Your task to perform on an android device: Add macbook air to the cart on amazon, then select checkout. Image 0: 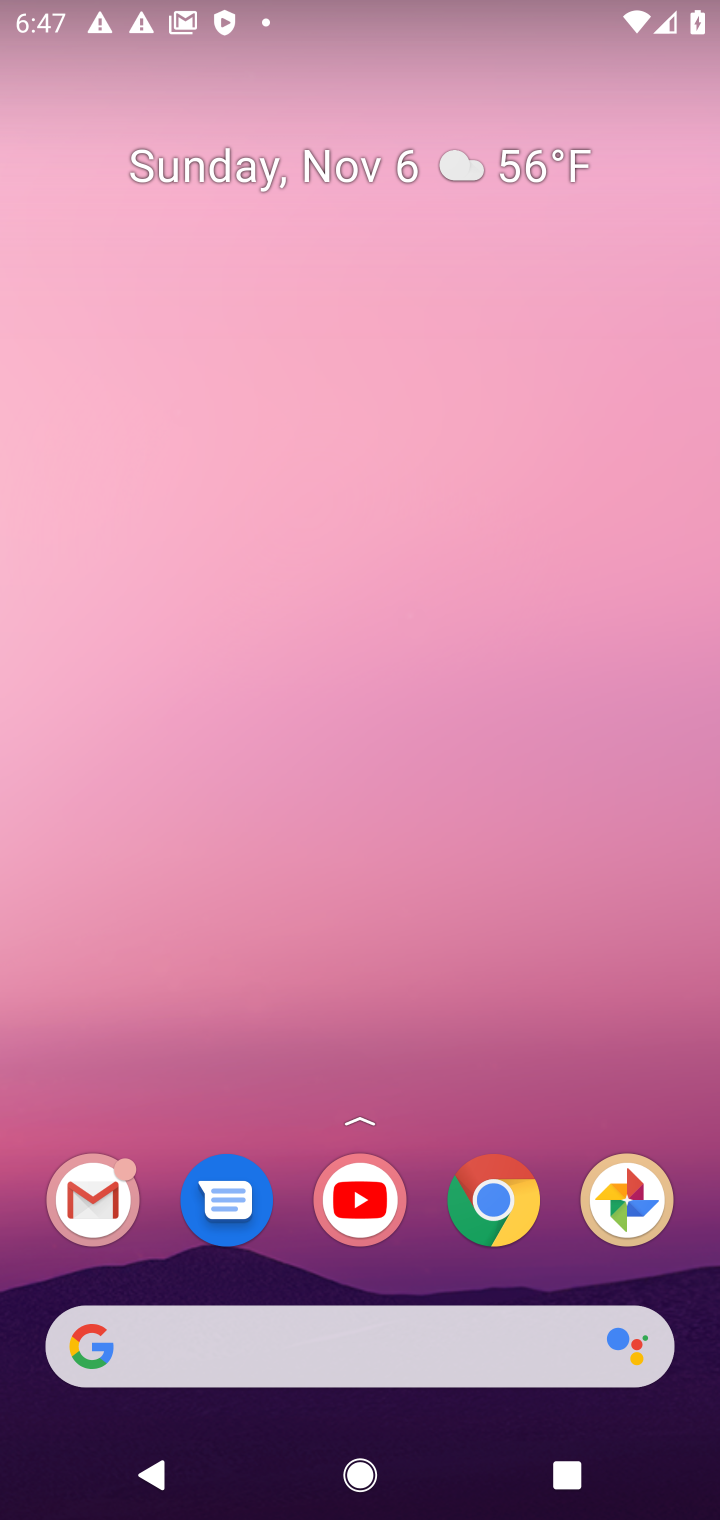
Step 0: drag from (298, 1357) to (287, 381)
Your task to perform on an android device: Add macbook air to the cart on amazon, then select checkout. Image 1: 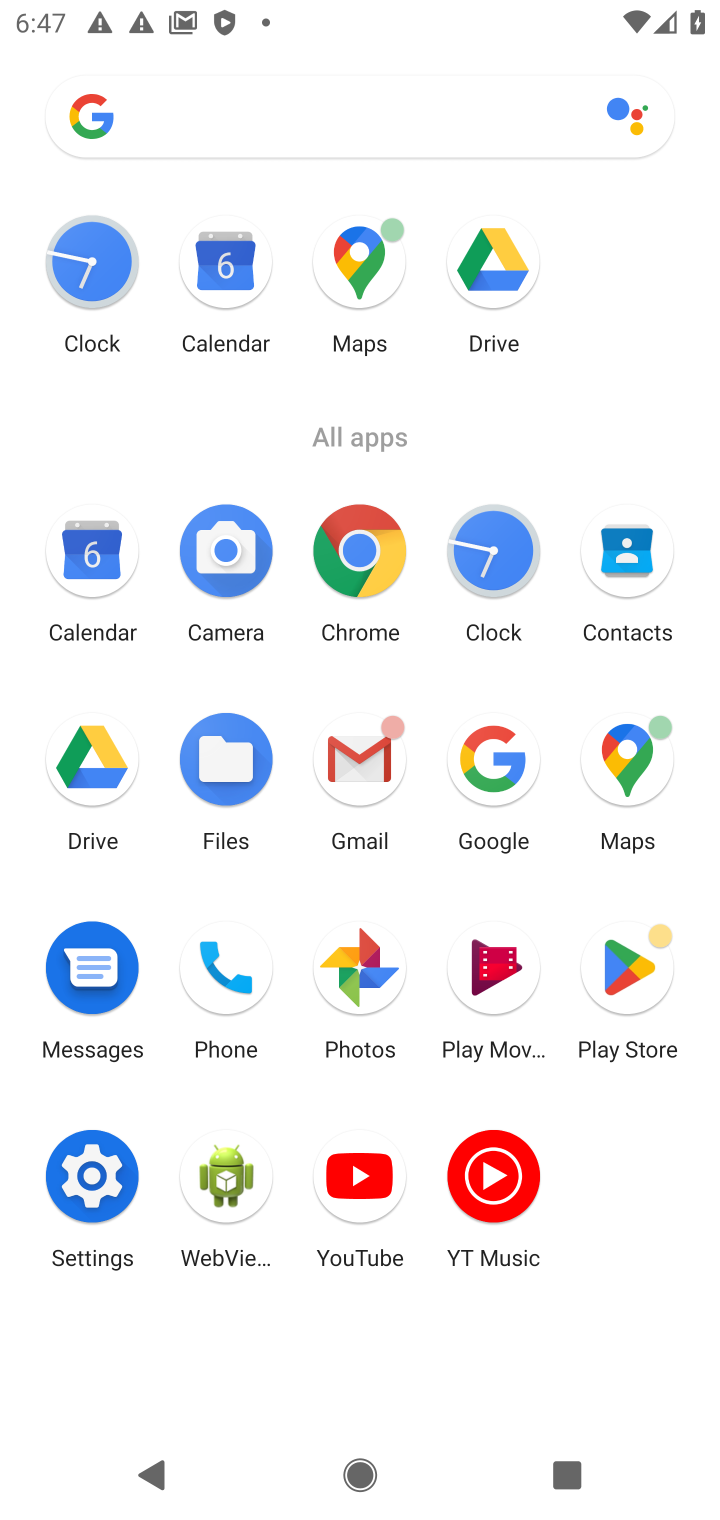
Step 1: click (490, 757)
Your task to perform on an android device: Add macbook air to the cart on amazon, then select checkout. Image 2: 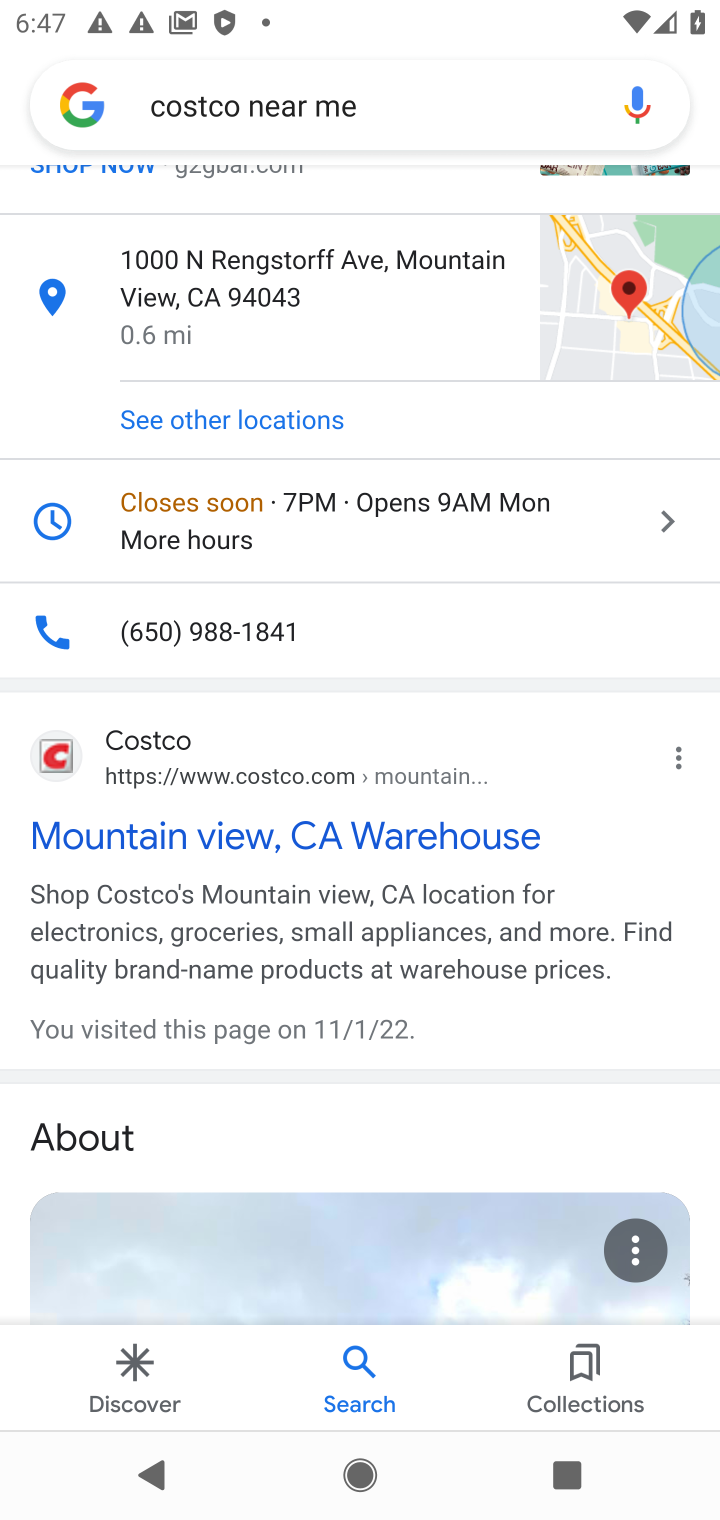
Step 2: click (335, 97)
Your task to perform on an android device: Add macbook air to the cart on amazon, then select checkout. Image 3: 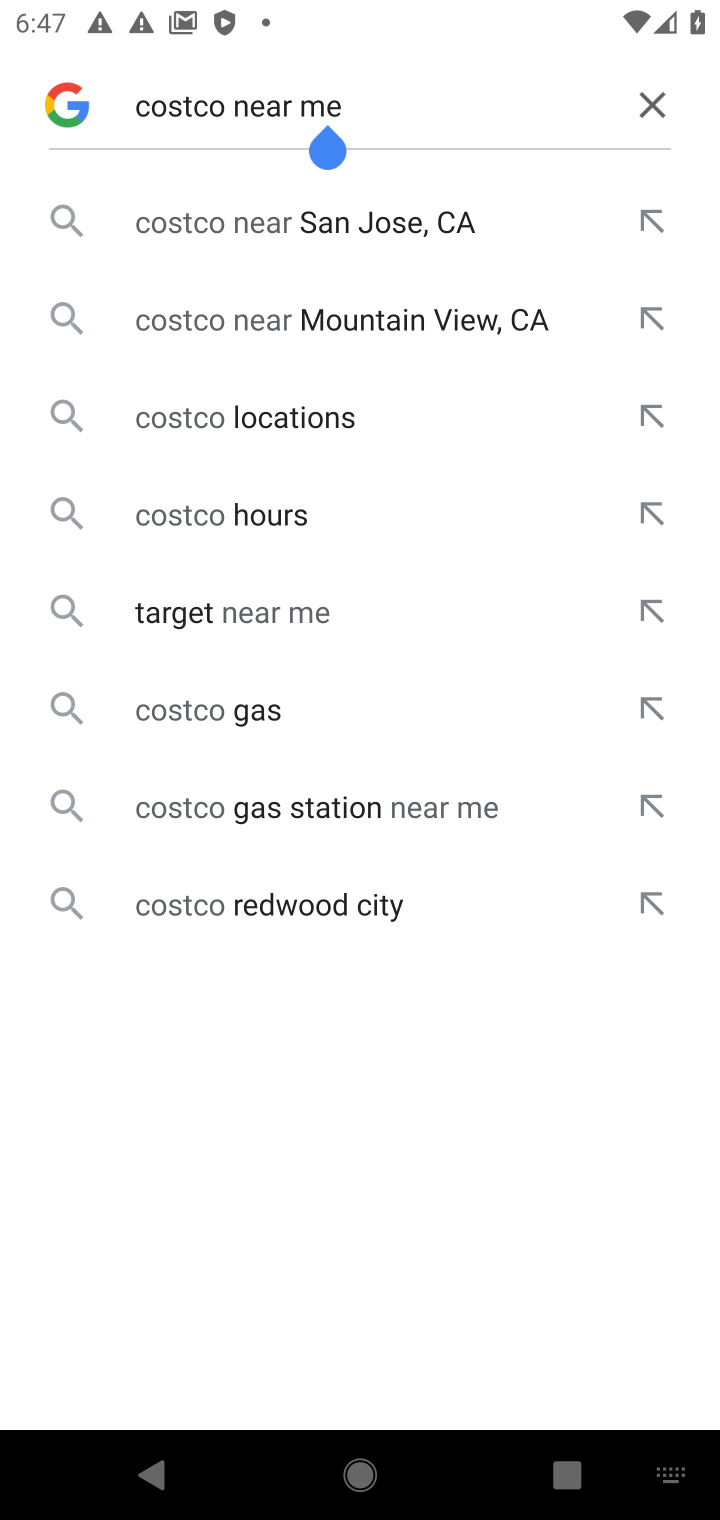
Step 3: click (649, 102)
Your task to perform on an android device: Add macbook air to the cart on amazon, then select checkout. Image 4: 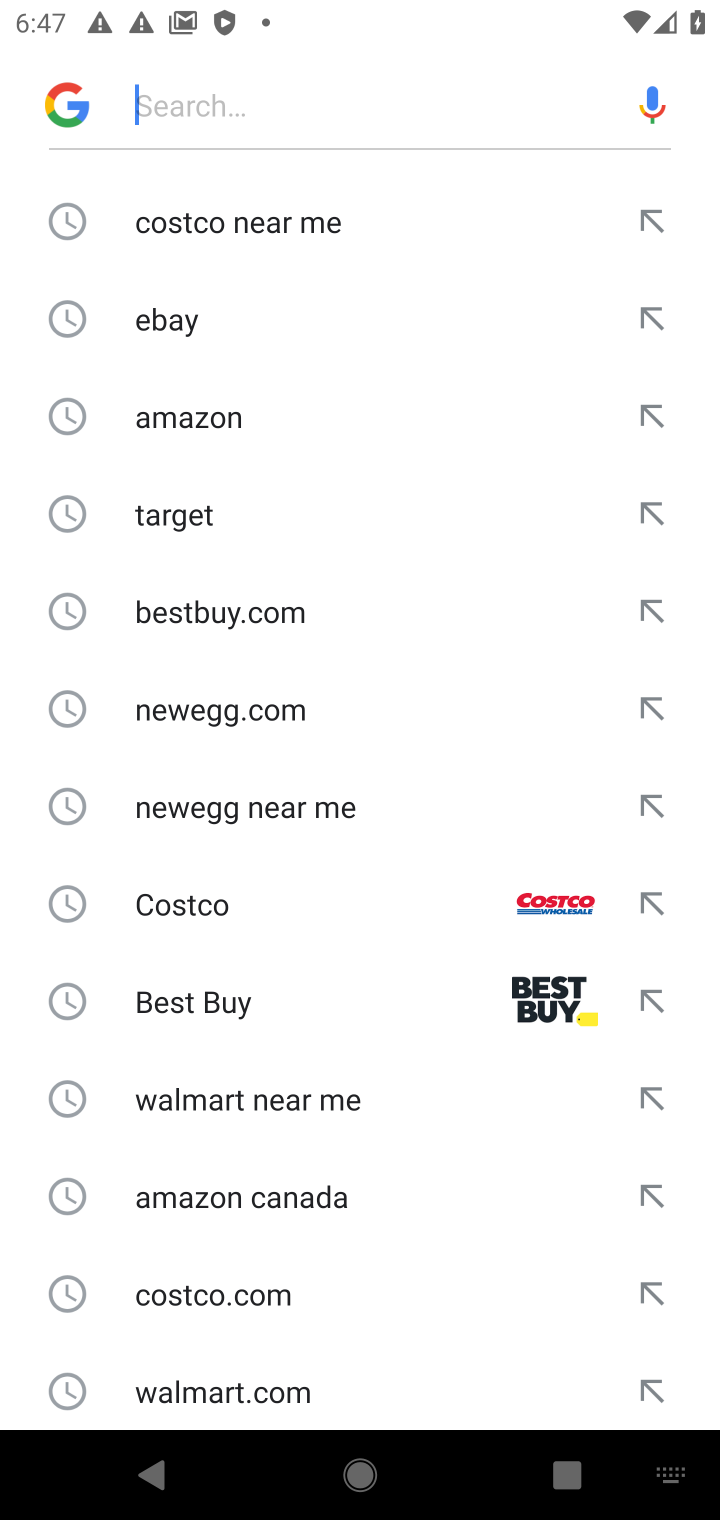
Step 4: click (346, 87)
Your task to perform on an android device: Add macbook air to the cart on amazon, then select checkout. Image 5: 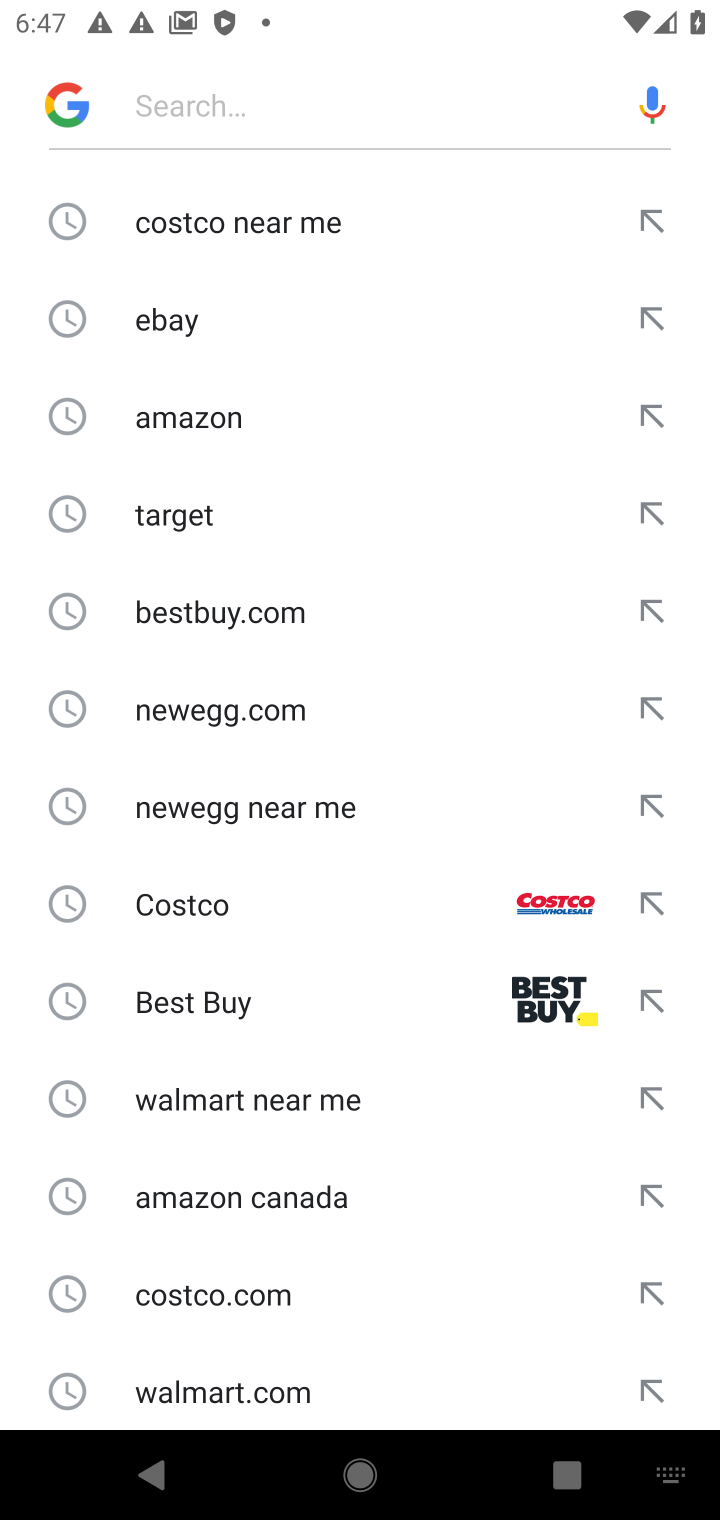
Step 5: type "amazon "
Your task to perform on an android device: Add macbook air to the cart on amazon, then select checkout. Image 6: 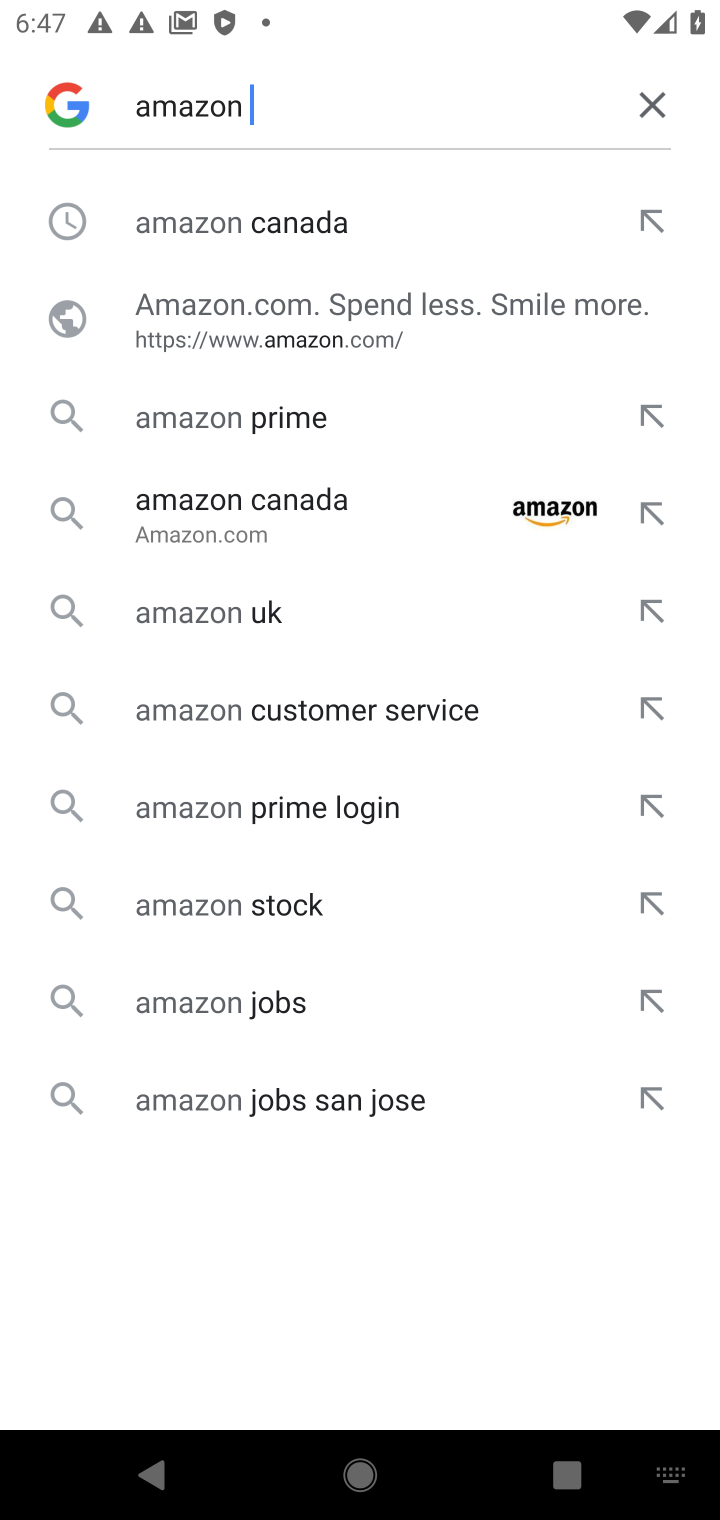
Step 6: click (271, 206)
Your task to perform on an android device: Add macbook air to the cart on amazon, then select checkout. Image 7: 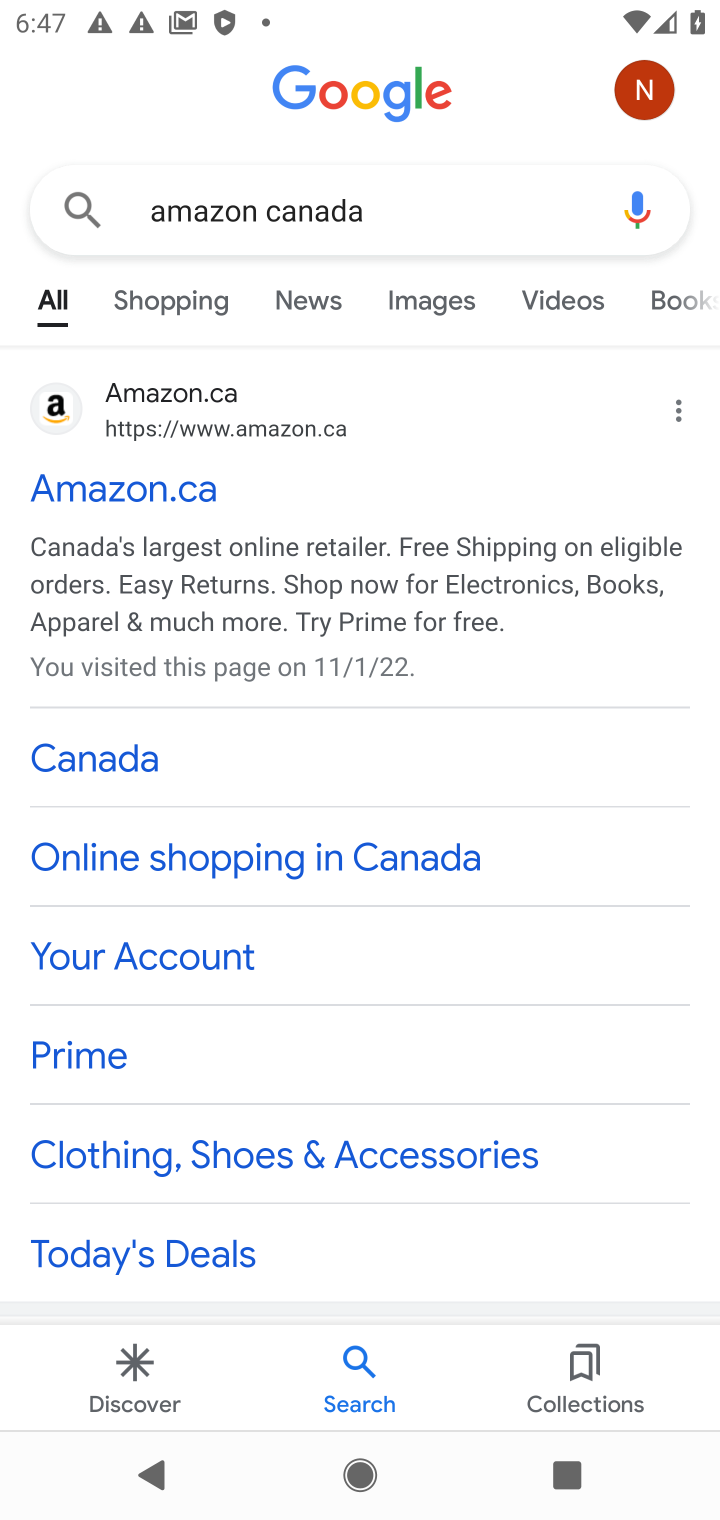
Step 7: click (48, 395)
Your task to perform on an android device: Add macbook air to the cart on amazon, then select checkout. Image 8: 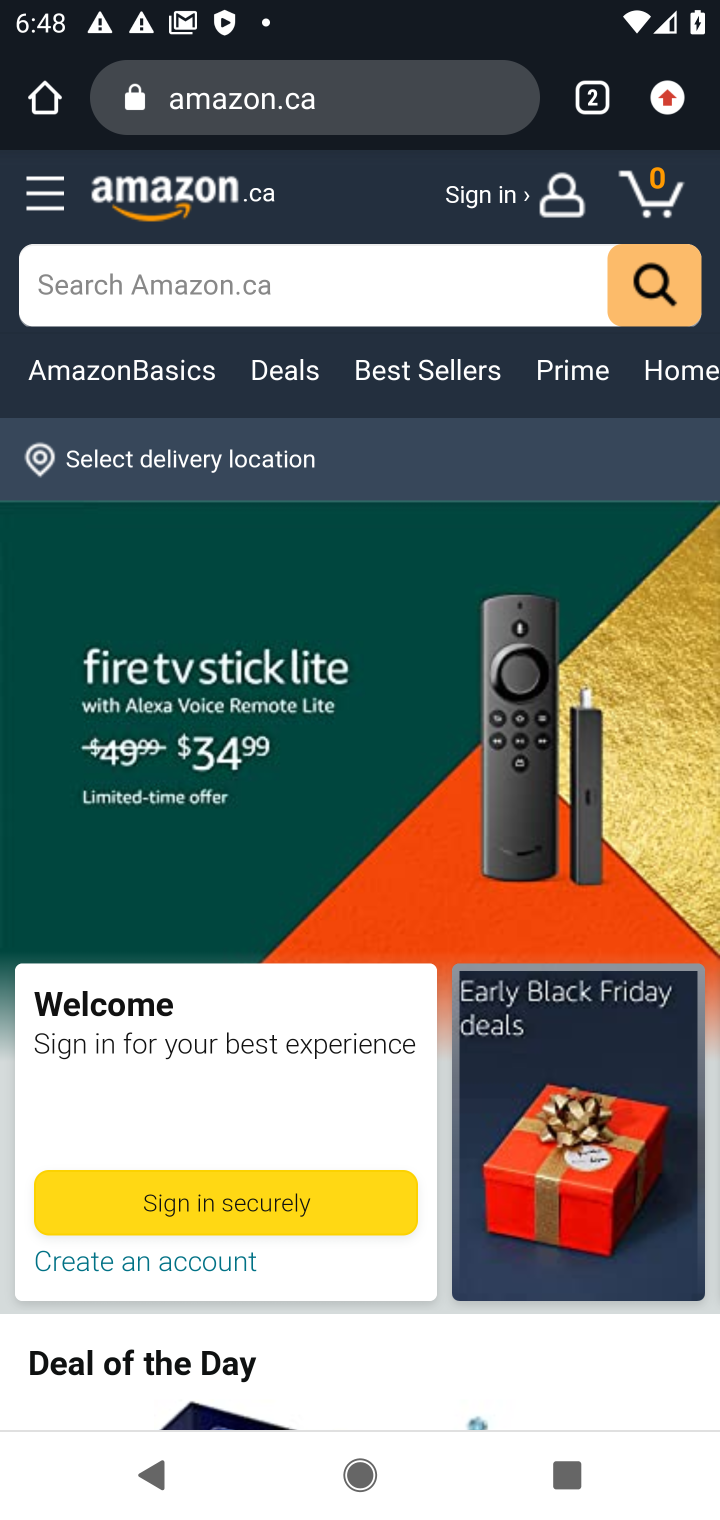
Step 8: click (375, 272)
Your task to perform on an android device: Add macbook air to the cart on amazon, then select checkout. Image 9: 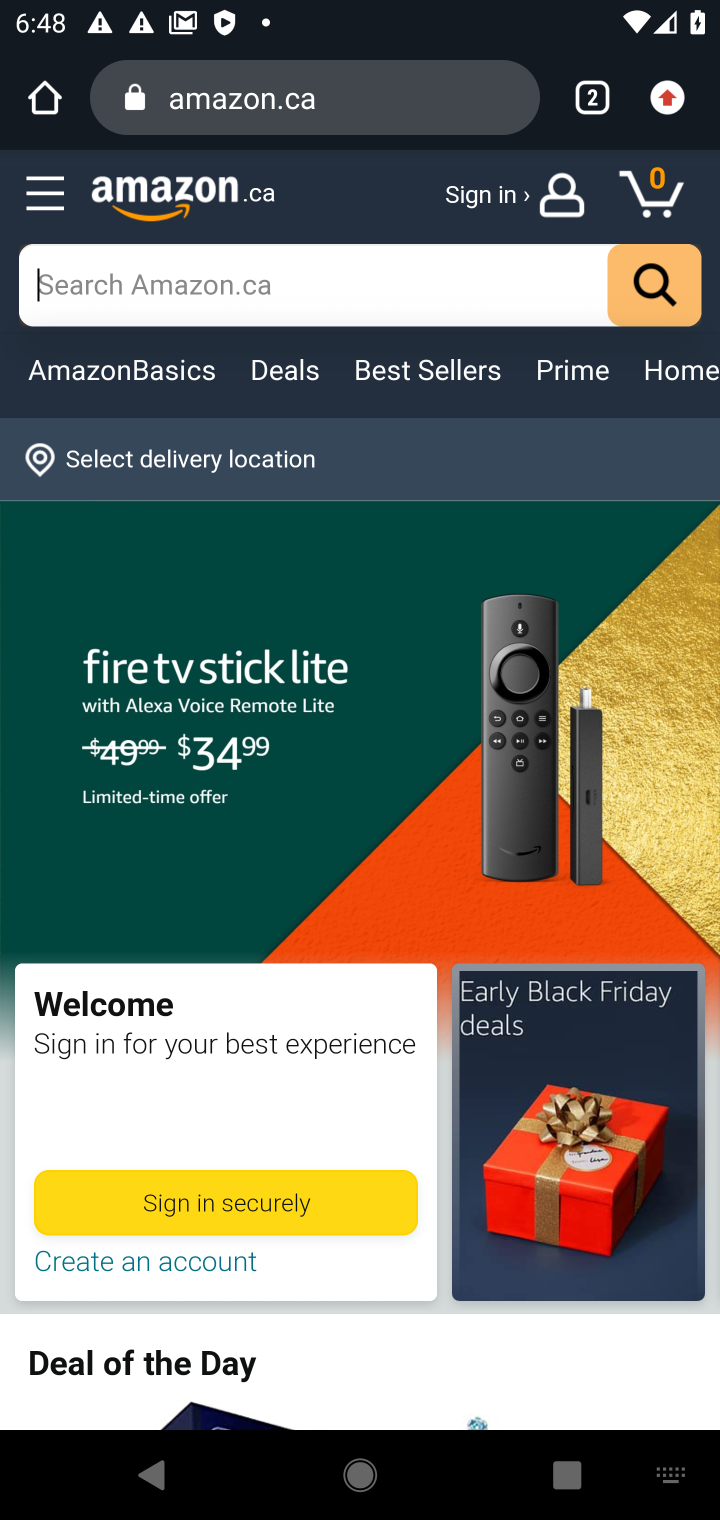
Step 9: click (380, 277)
Your task to perform on an android device: Add macbook air to the cart on amazon, then select checkout. Image 10: 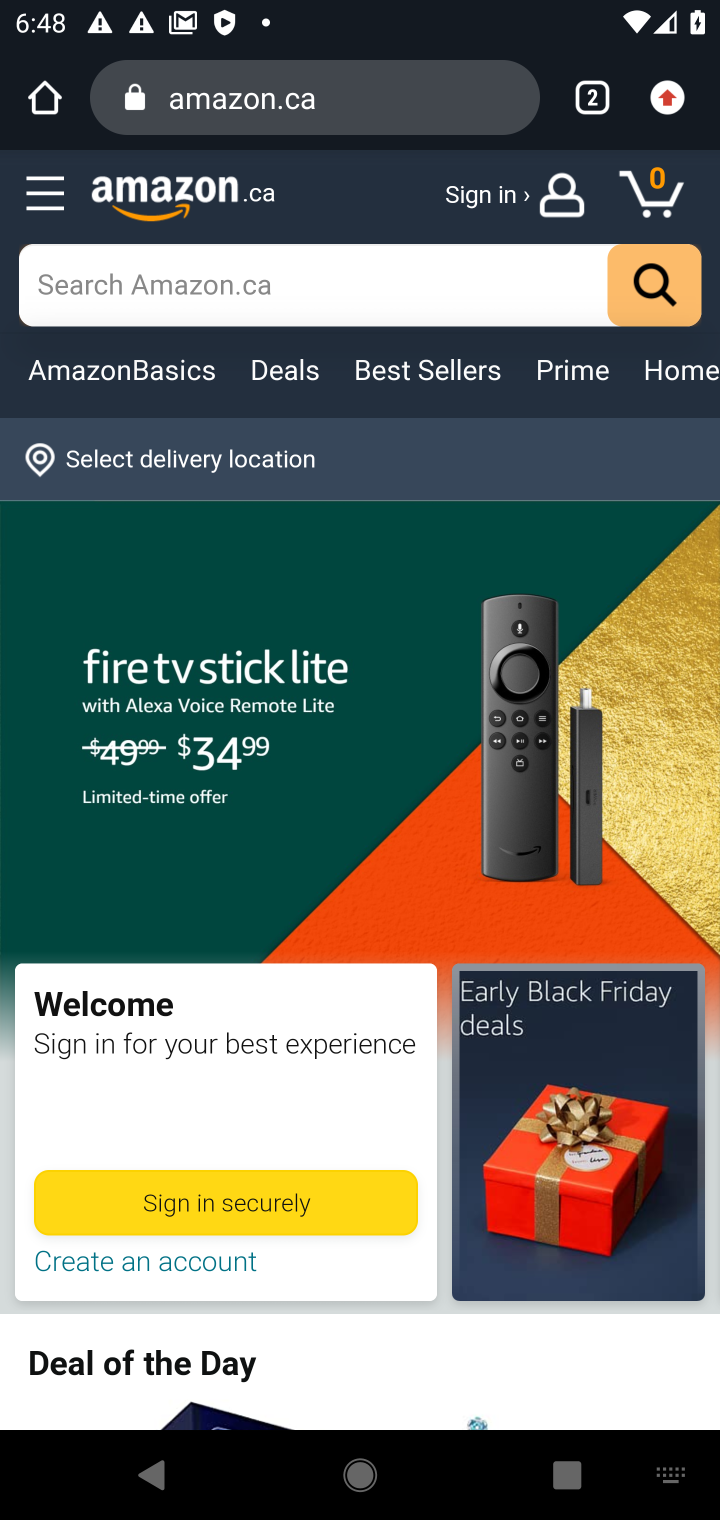
Step 10: type "macbook air "
Your task to perform on an android device: Add macbook air to the cart on amazon, then select checkout. Image 11: 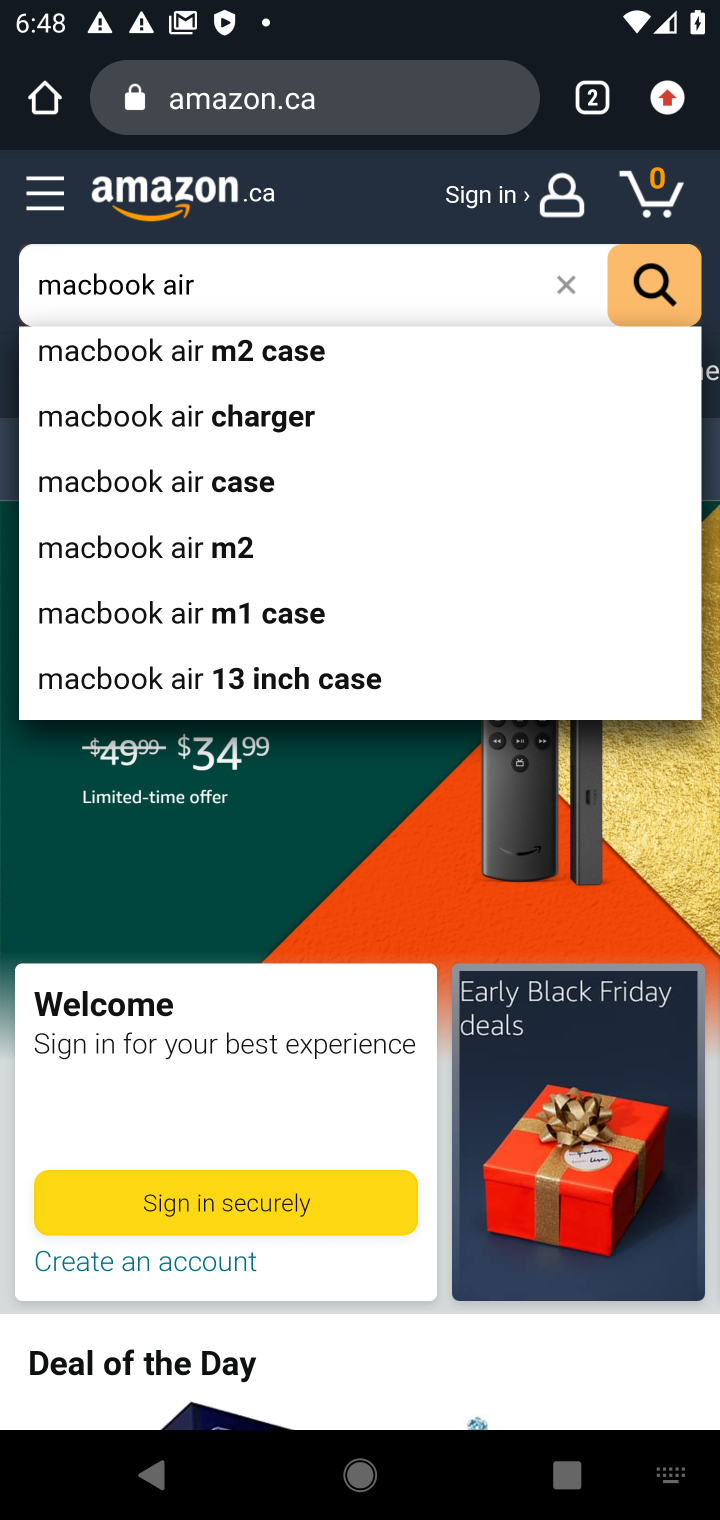
Step 11: click (238, 348)
Your task to perform on an android device: Add macbook air to the cart on amazon, then select checkout. Image 12: 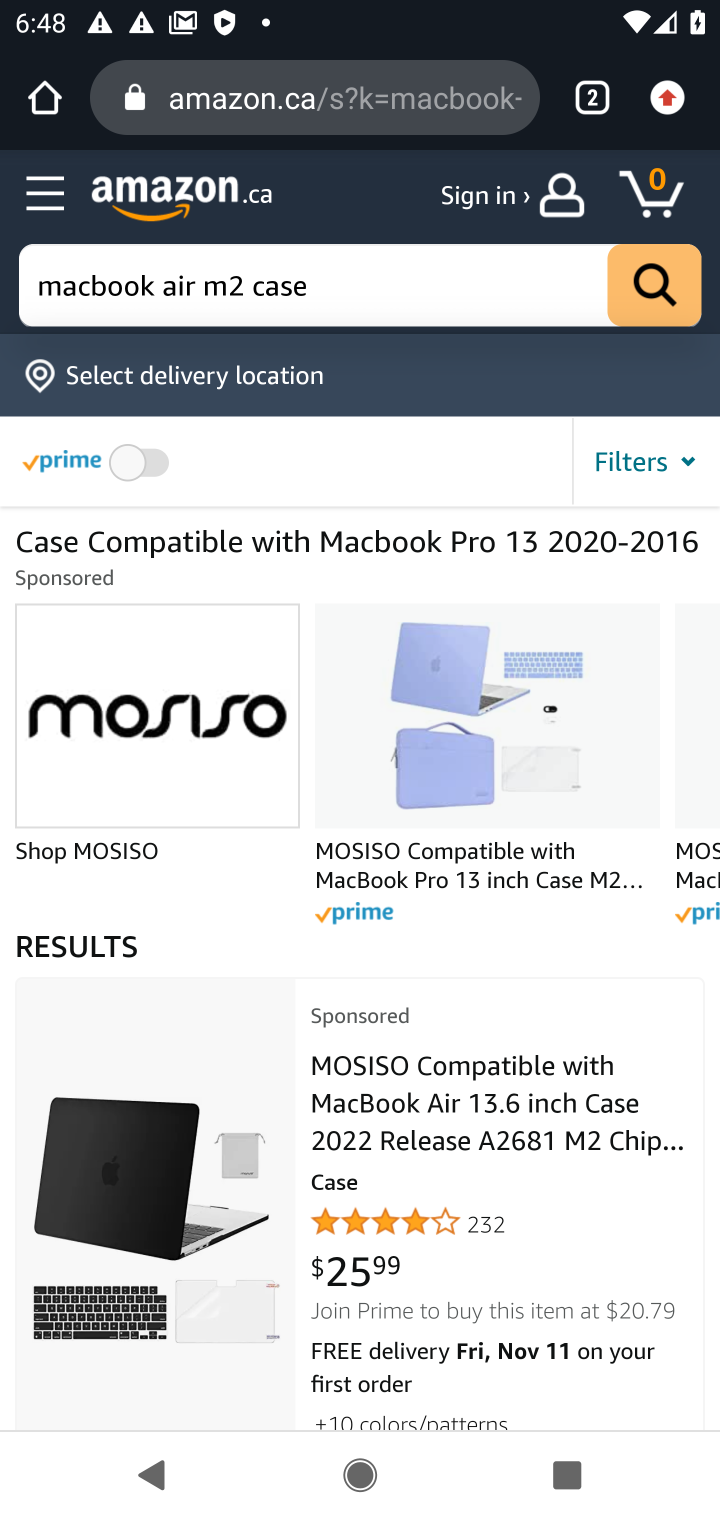
Step 12: drag from (353, 1258) to (372, 678)
Your task to perform on an android device: Add macbook air to the cart on amazon, then select checkout. Image 13: 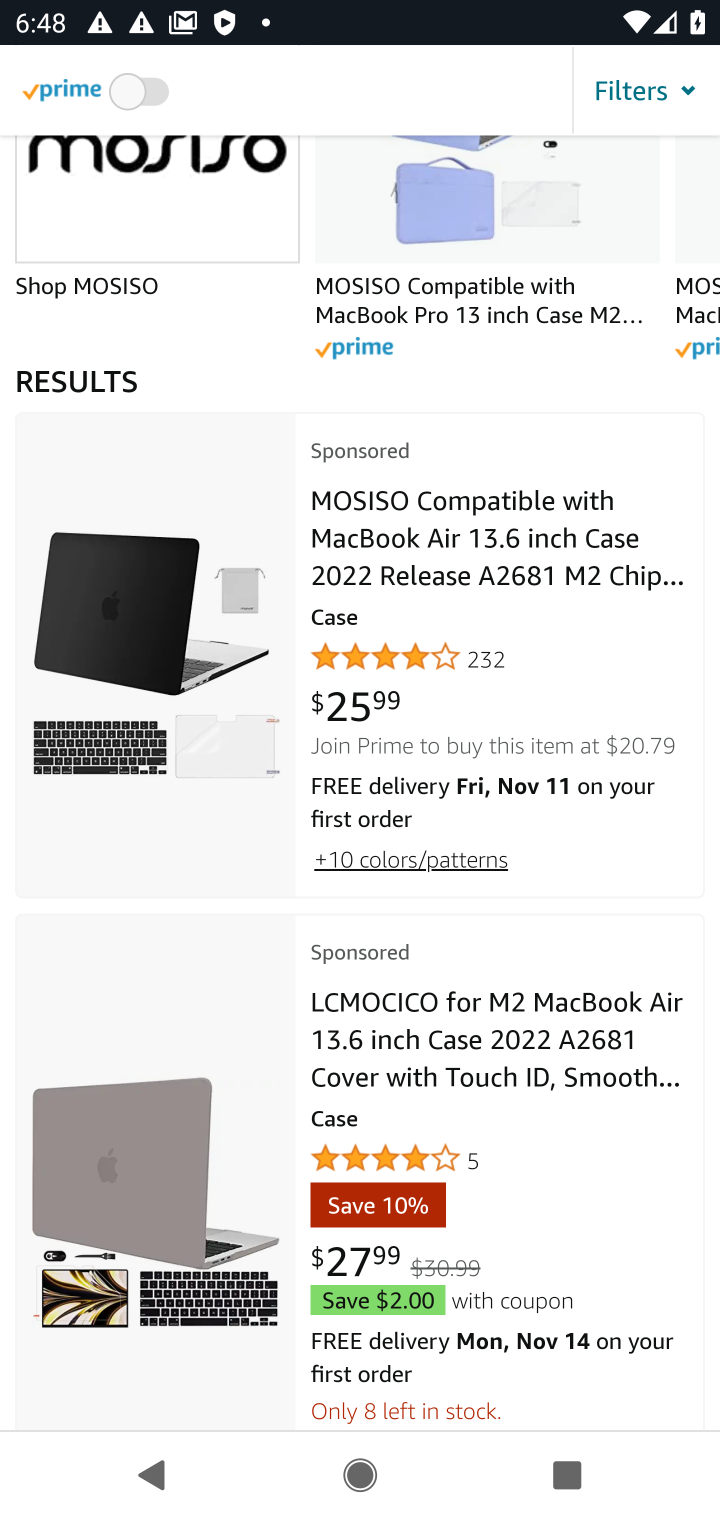
Step 13: drag from (307, 574) to (397, 818)
Your task to perform on an android device: Add macbook air to the cart on amazon, then select checkout. Image 14: 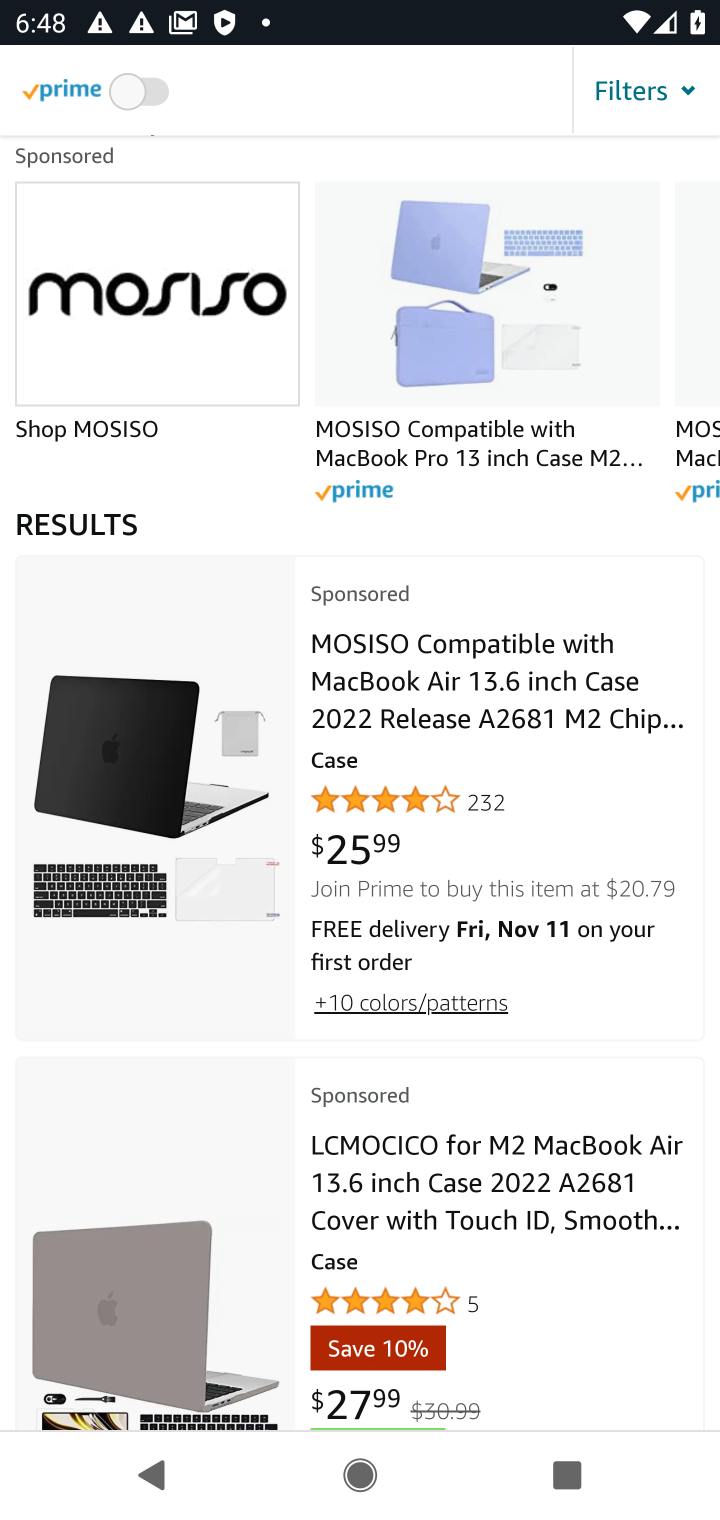
Step 14: click (476, 650)
Your task to perform on an android device: Add macbook air to the cart on amazon, then select checkout. Image 15: 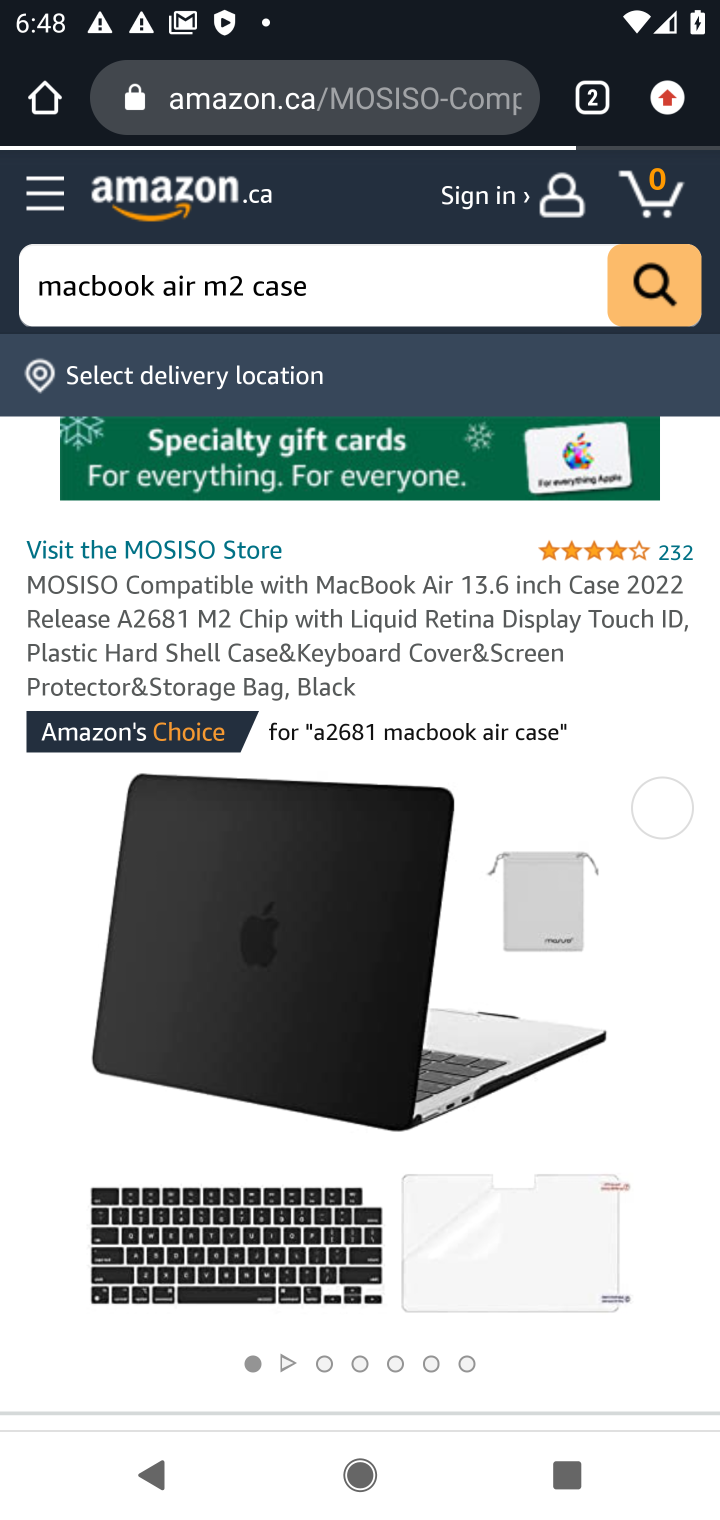
Step 15: drag from (409, 1319) to (485, 716)
Your task to perform on an android device: Add macbook air to the cart on amazon, then select checkout. Image 16: 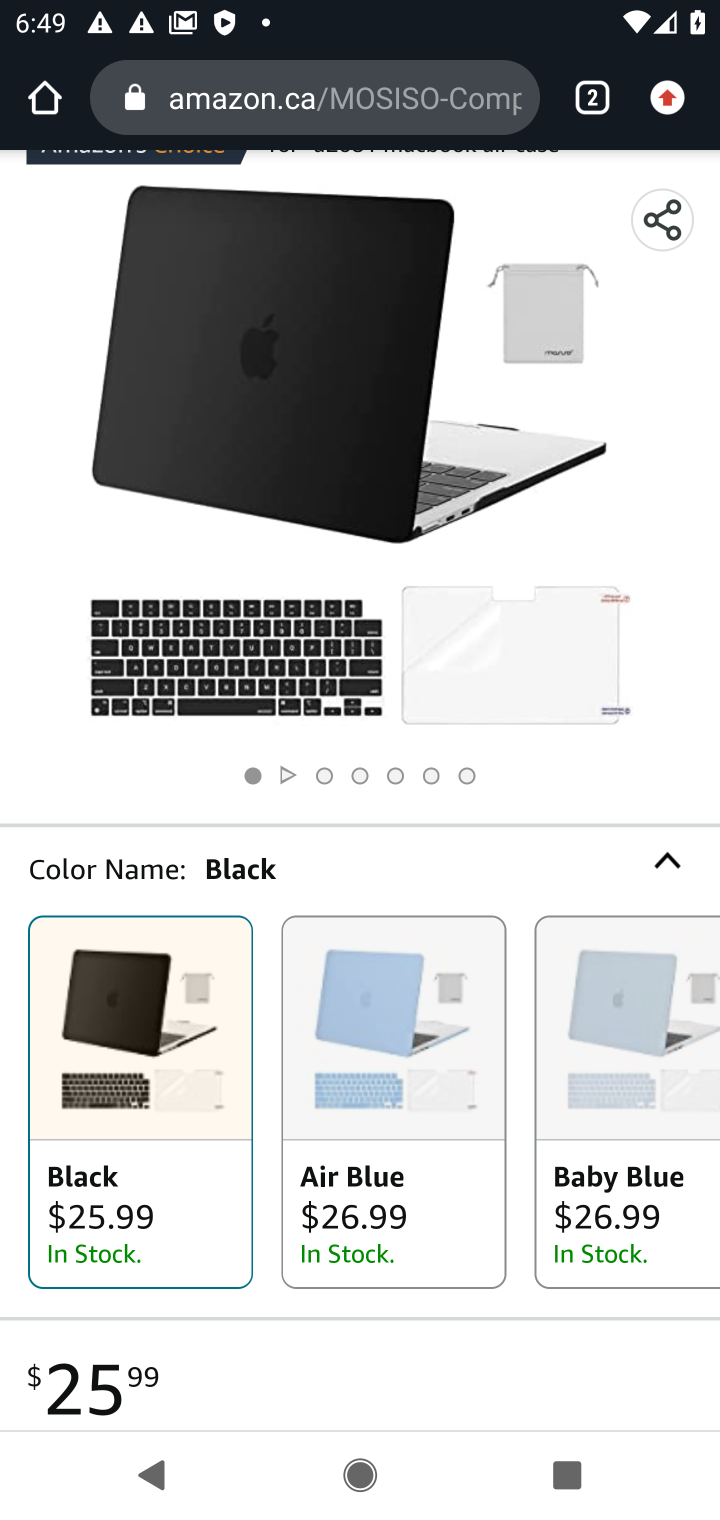
Step 16: drag from (363, 1336) to (446, 505)
Your task to perform on an android device: Add macbook air to the cart on amazon, then select checkout. Image 17: 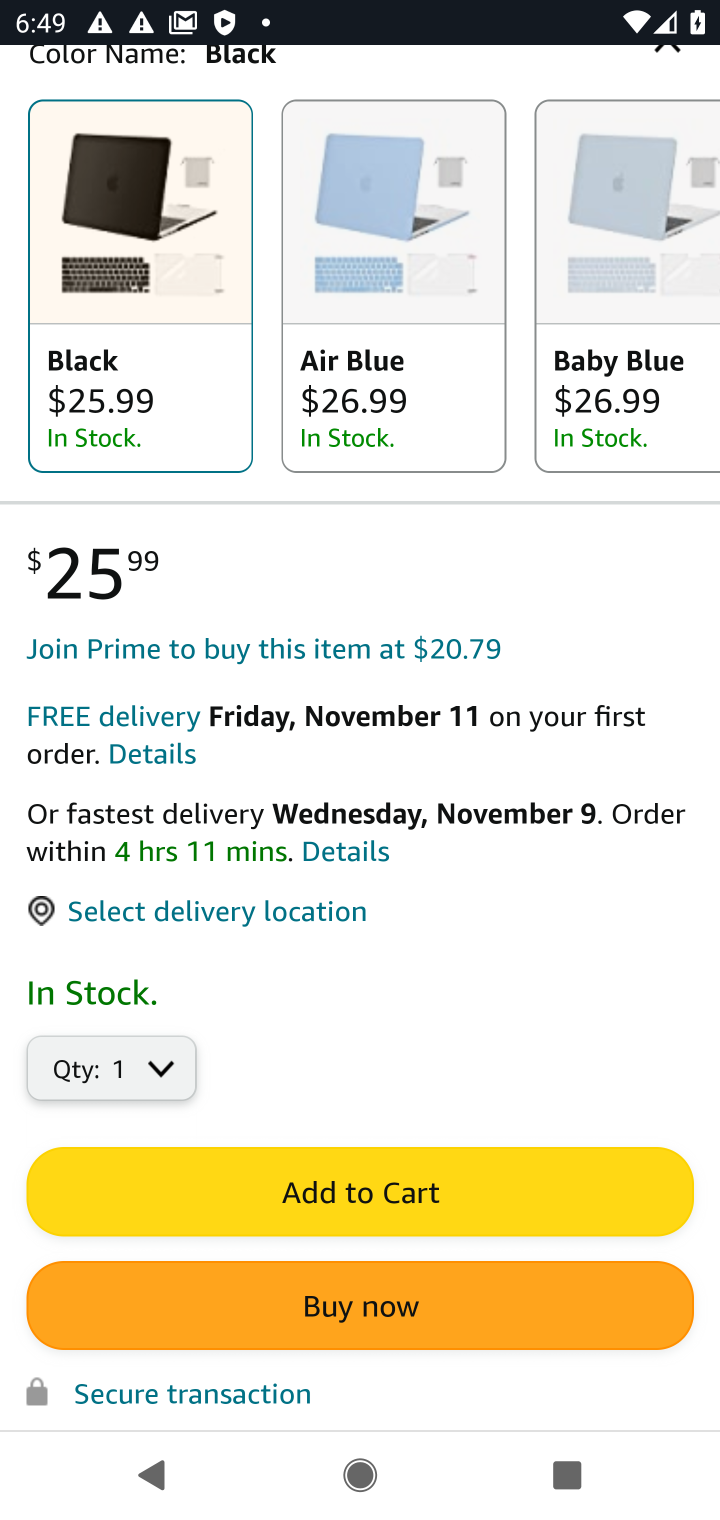
Step 17: click (385, 1191)
Your task to perform on an android device: Add macbook air to the cart on amazon, then select checkout. Image 18: 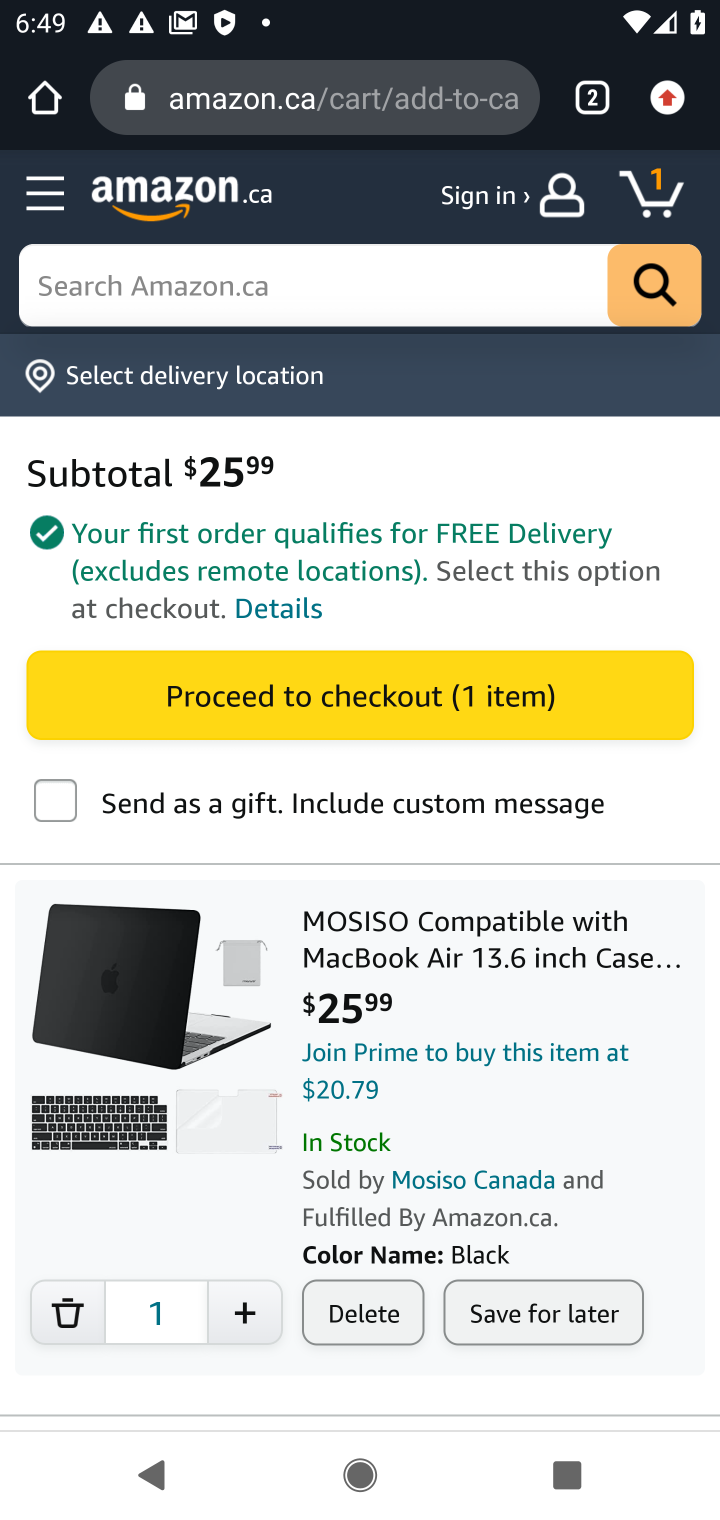
Step 18: task complete